Your task to perform on an android device: add a contact Image 0: 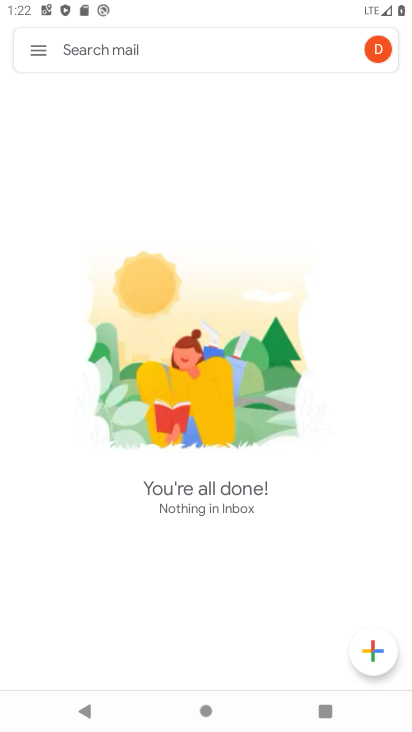
Step 0: press home button
Your task to perform on an android device: add a contact Image 1: 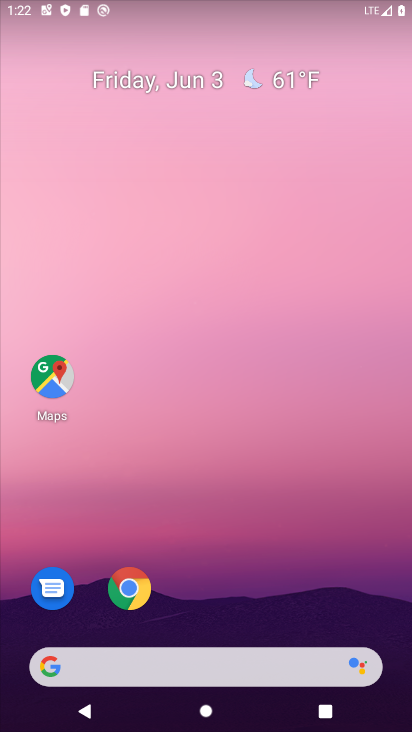
Step 1: drag from (245, 568) to (297, 126)
Your task to perform on an android device: add a contact Image 2: 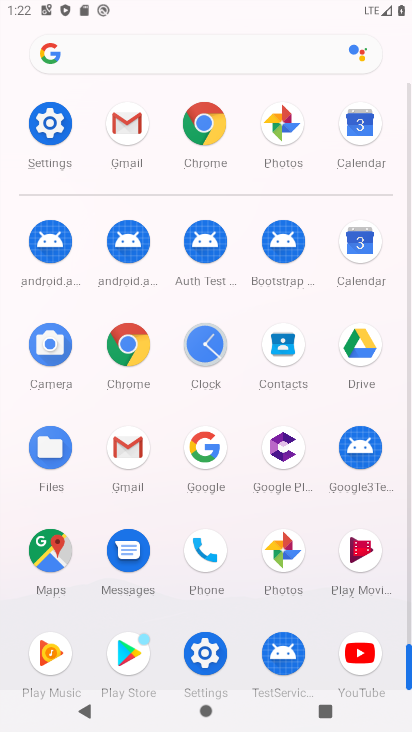
Step 2: click (273, 356)
Your task to perform on an android device: add a contact Image 3: 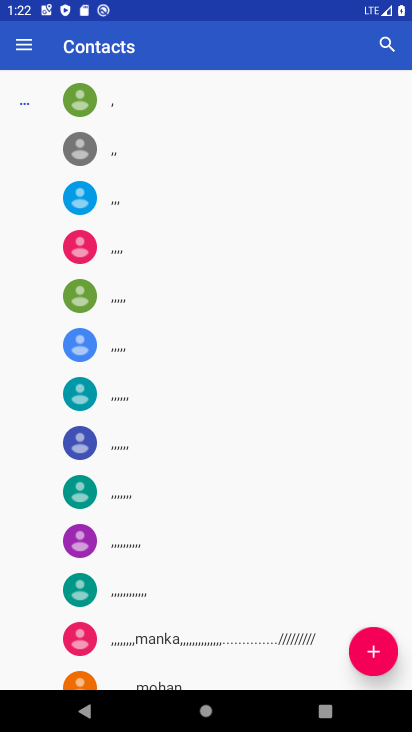
Step 3: click (371, 658)
Your task to perform on an android device: add a contact Image 4: 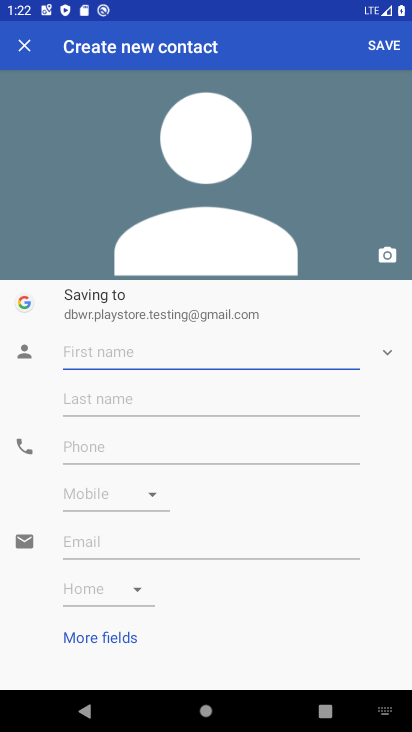
Step 4: click (162, 351)
Your task to perform on an android device: add a contact Image 5: 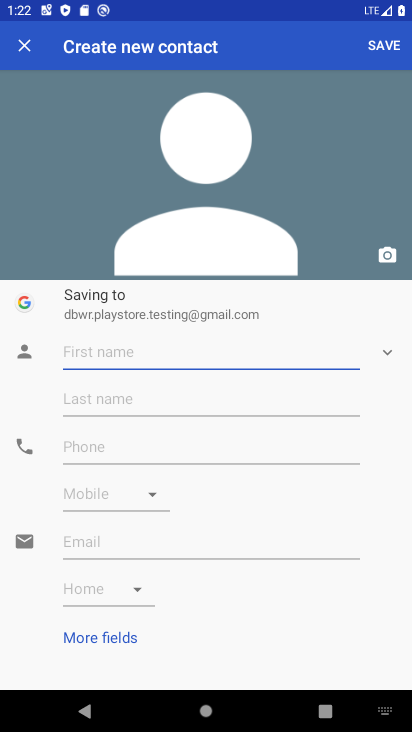
Step 5: type "fdyrstrs"
Your task to perform on an android device: add a contact Image 6: 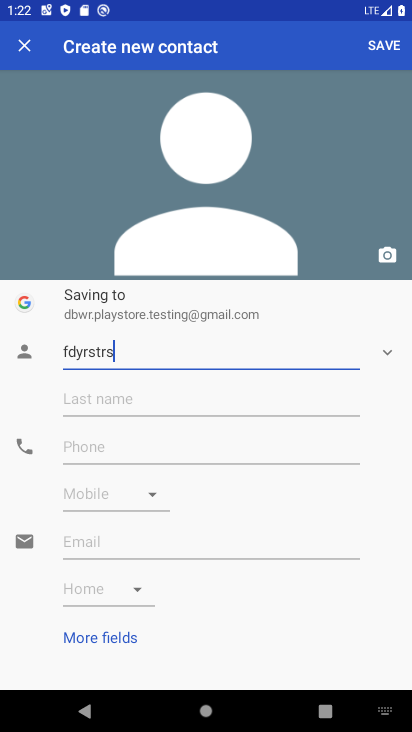
Step 6: type ""
Your task to perform on an android device: add a contact Image 7: 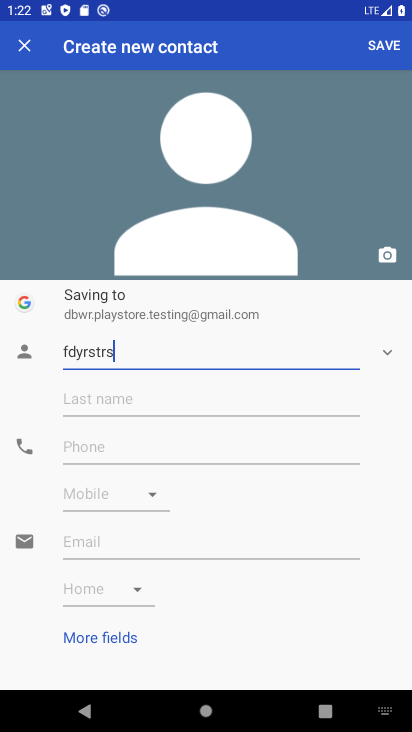
Step 7: click (382, 52)
Your task to perform on an android device: add a contact Image 8: 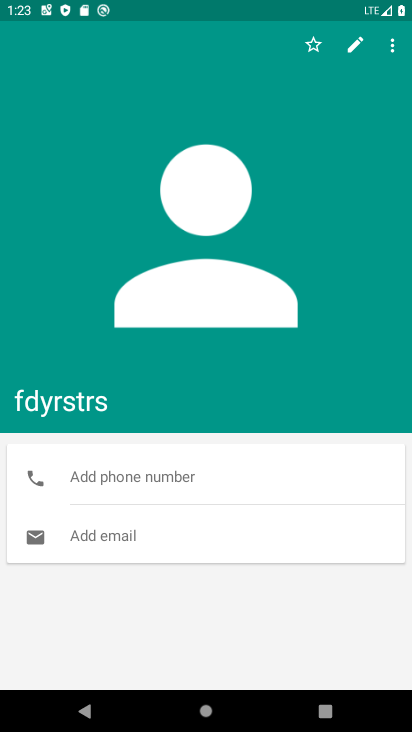
Step 8: task complete